Your task to perform on an android device: Open Google Chrome Image 0: 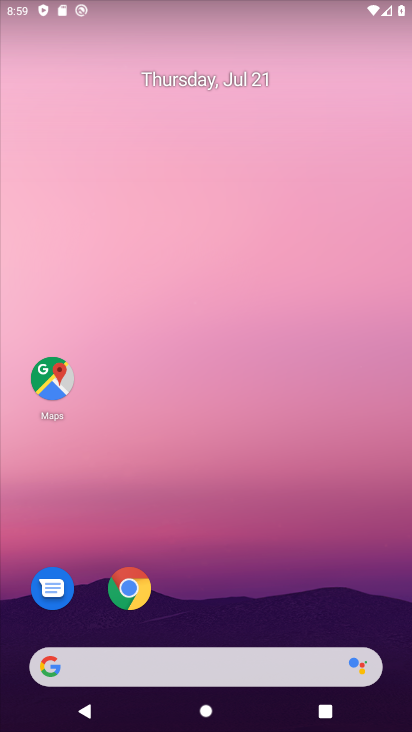
Step 0: click (122, 575)
Your task to perform on an android device: Open Google Chrome Image 1: 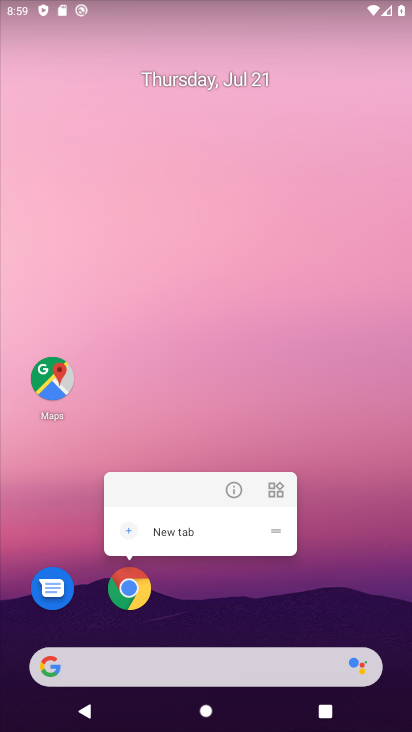
Step 1: click (130, 587)
Your task to perform on an android device: Open Google Chrome Image 2: 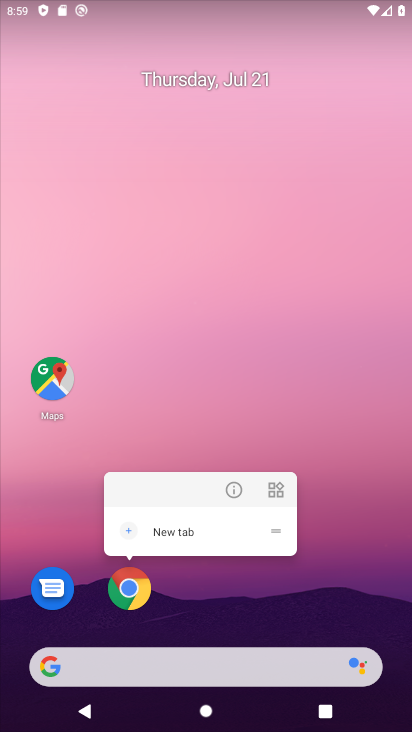
Step 2: click (130, 587)
Your task to perform on an android device: Open Google Chrome Image 3: 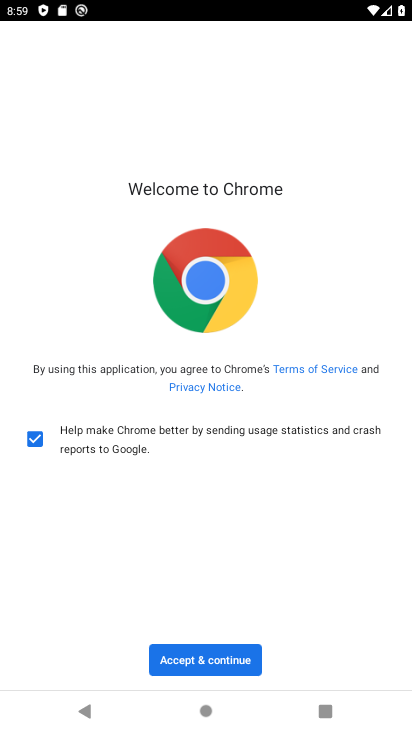
Step 3: click (168, 658)
Your task to perform on an android device: Open Google Chrome Image 4: 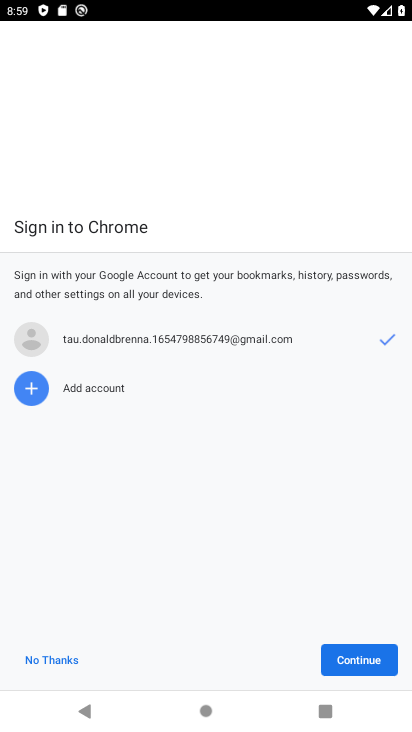
Step 4: click (358, 669)
Your task to perform on an android device: Open Google Chrome Image 5: 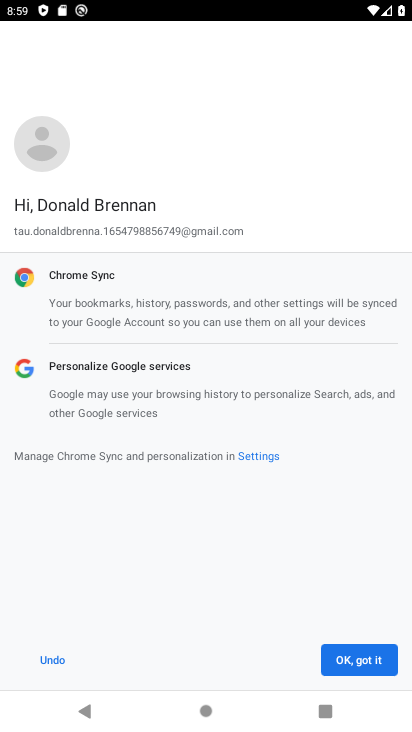
Step 5: click (357, 658)
Your task to perform on an android device: Open Google Chrome Image 6: 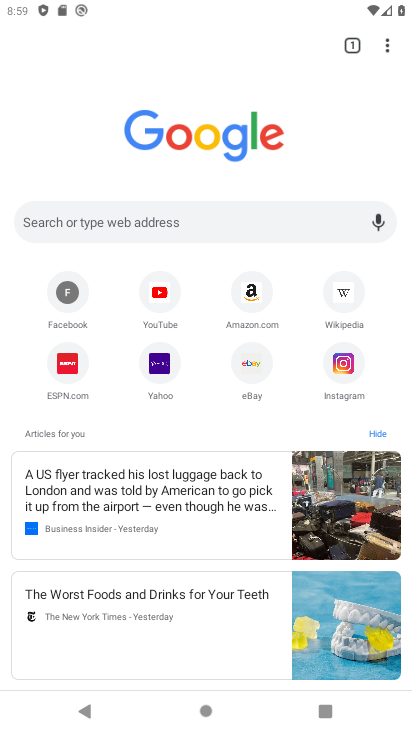
Step 6: task complete